Your task to perform on an android device: See recent photos Image 0: 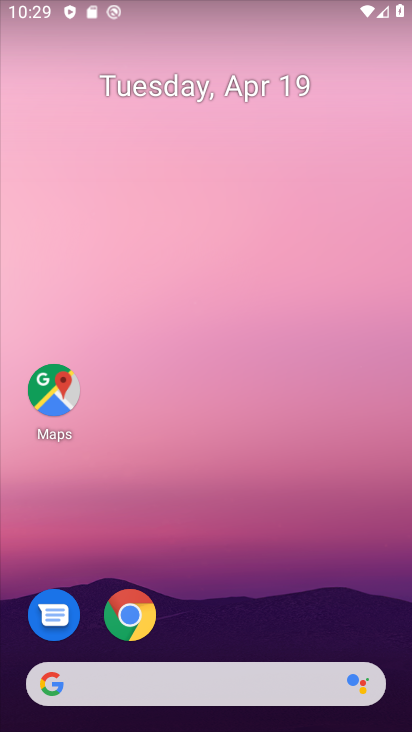
Step 0: drag from (198, 658) to (339, 42)
Your task to perform on an android device: See recent photos Image 1: 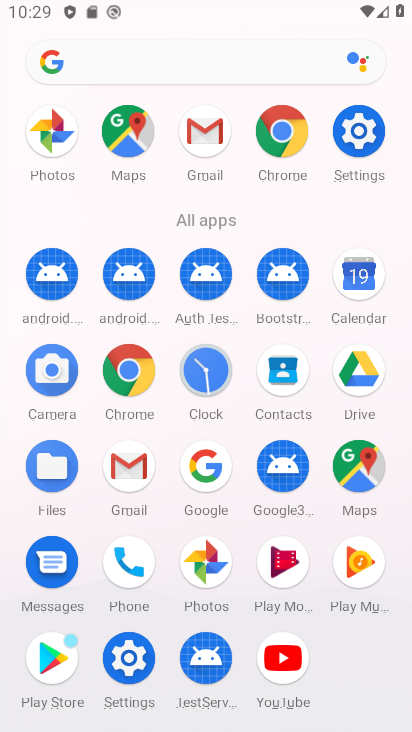
Step 1: click (63, 147)
Your task to perform on an android device: See recent photos Image 2: 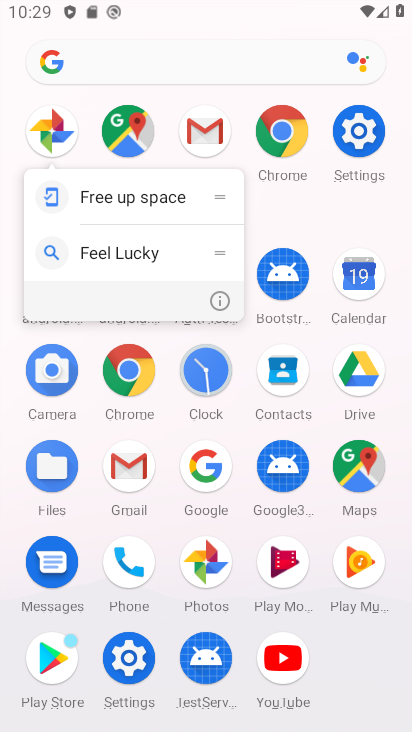
Step 2: click (51, 136)
Your task to perform on an android device: See recent photos Image 3: 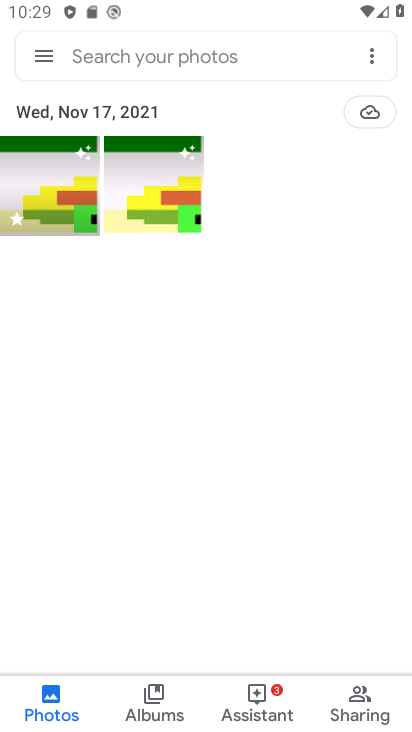
Step 3: task complete